Your task to perform on an android device: open wifi settings Image 0: 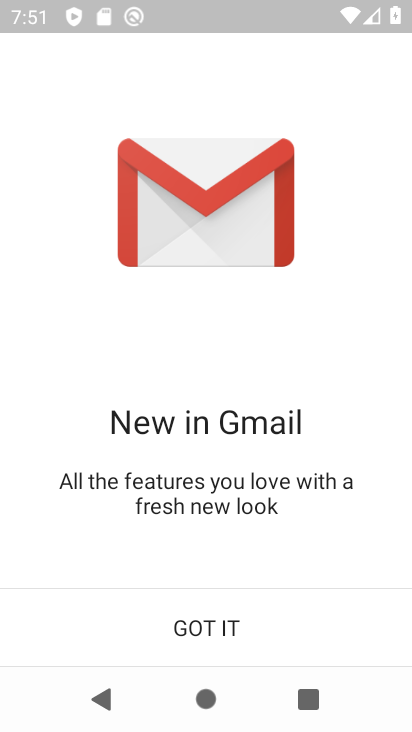
Step 0: press home button
Your task to perform on an android device: open wifi settings Image 1: 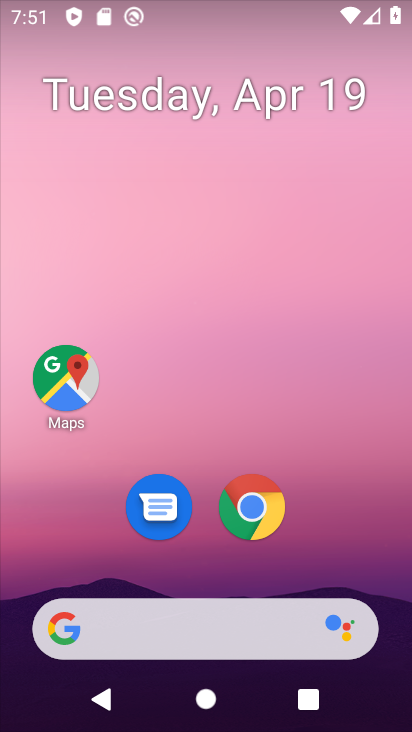
Step 1: drag from (336, 517) to (202, 42)
Your task to perform on an android device: open wifi settings Image 2: 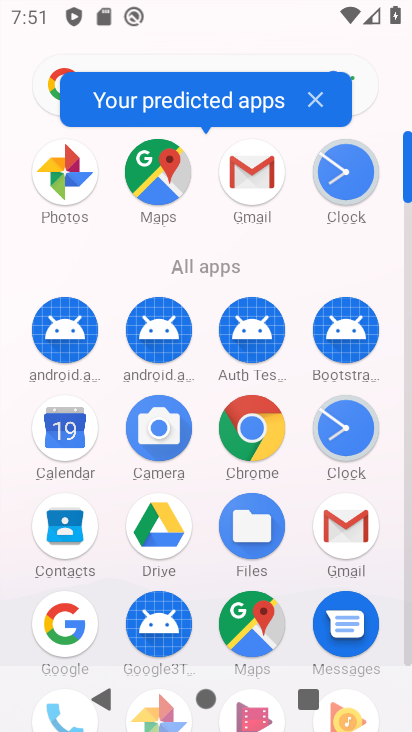
Step 2: drag from (208, 610) to (206, 221)
Your task to perform on an android device: open wifi settings Image 3: 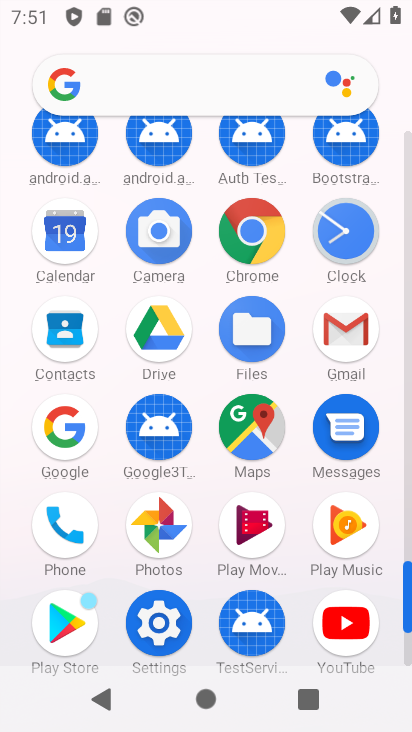
Step 3: click (155, 623)
Your task to perform on an android device: open wifi settings Image 4: 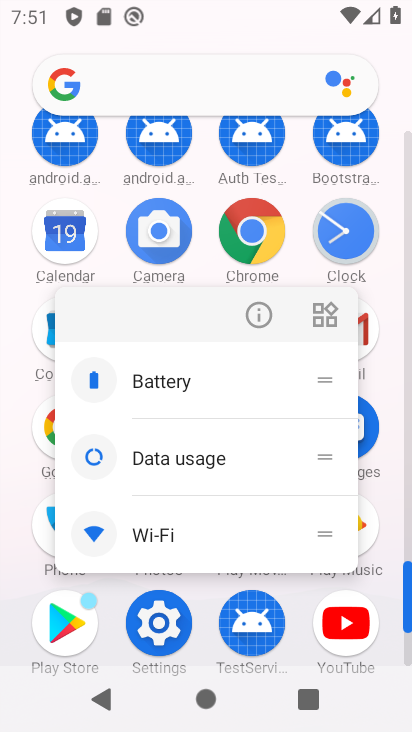
Step 4: click (147, 532)
Your task to perform on an android device: open wifi settings Image 5: 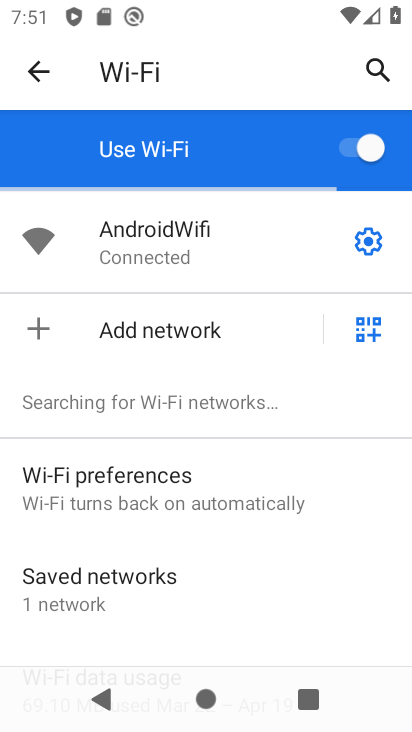
Step 5: task complete